Your task to perform on an android device: toggle location history Image 0: 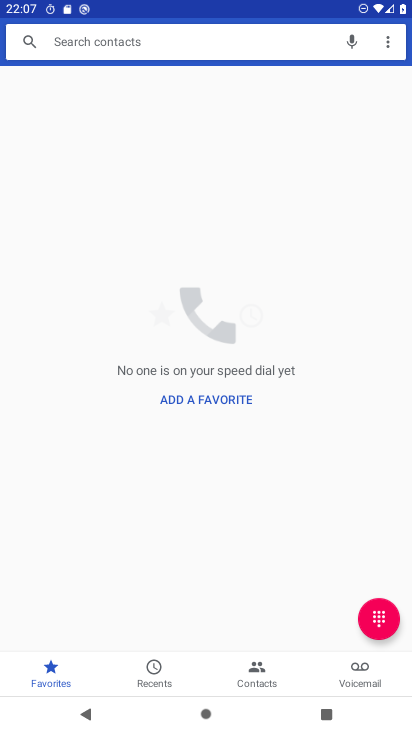
Step 0: press home button
Your task to perform on an android device: toggle location history Image 1: 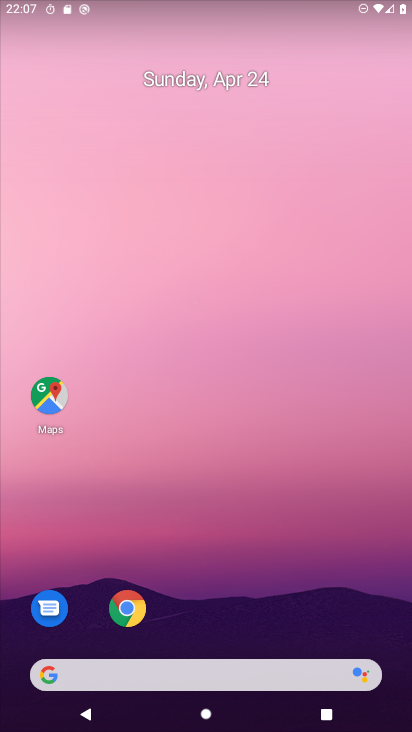
Step 1: drag from (292, 565) to (291, 65)
Your task to perform on an android device: toggle location history Image 2: 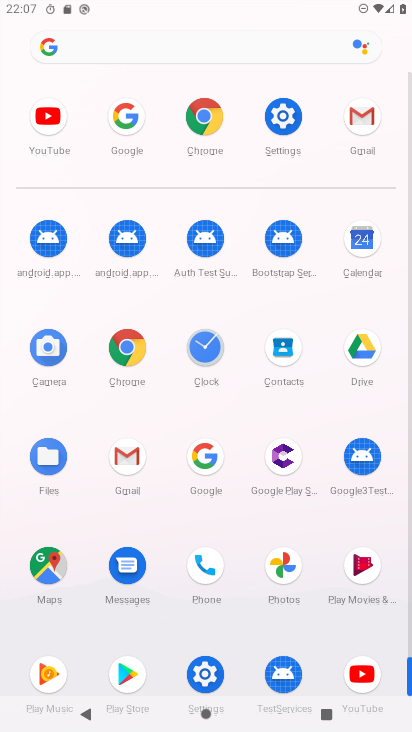
Step 2: click (288, 113)
Your task to perform on an android device: toggle location history Image 3: 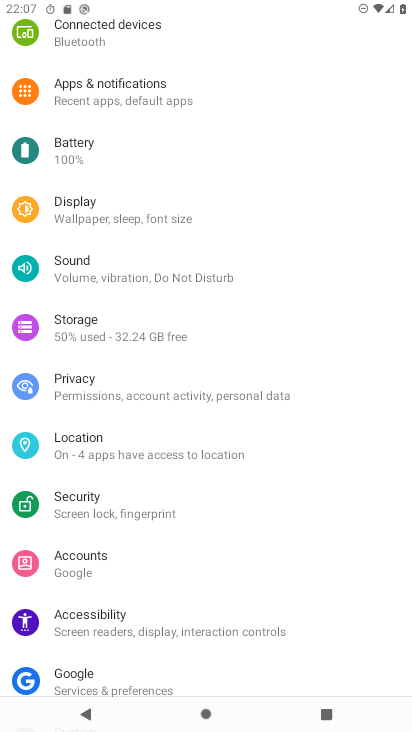
Step 3: click (149, 436)
Your task to perform on an android device: toggle location history Image 4: 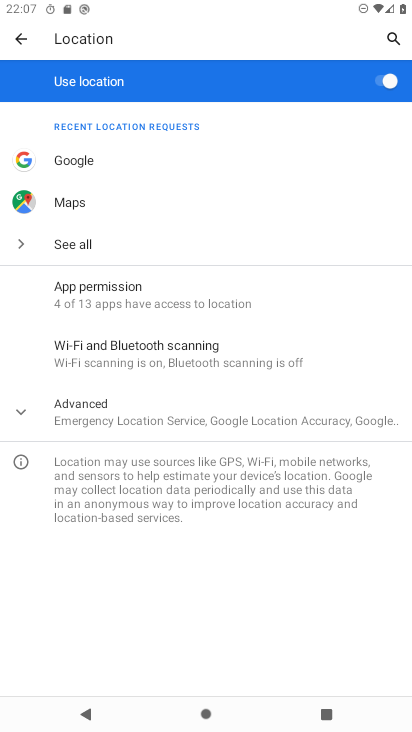
Step 4: click (17, 409)
Your task to perform on an android device: toggle location history Image 5: 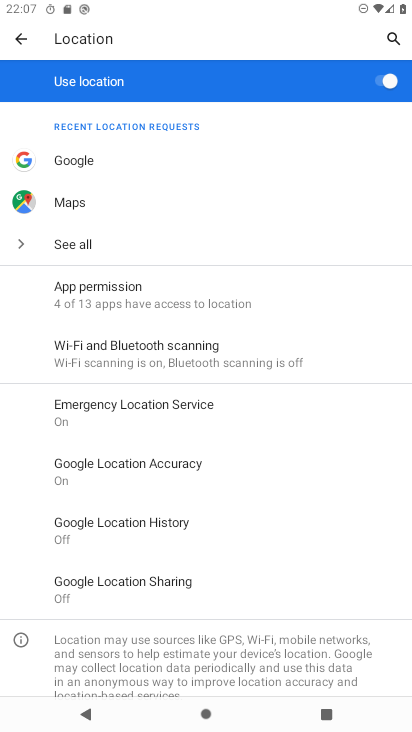
Step 5: click (84, 522)
Your task to perform on an android device: toggle location history Image 6: 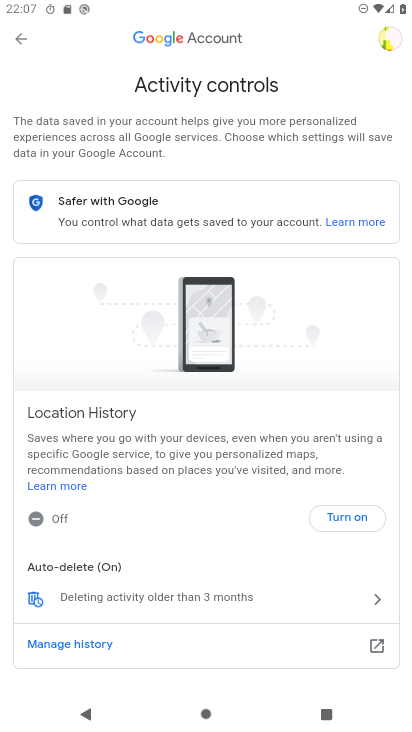
Step 6: click (331, 511)
Your task to perform on an android device: toggle location history Image 7: 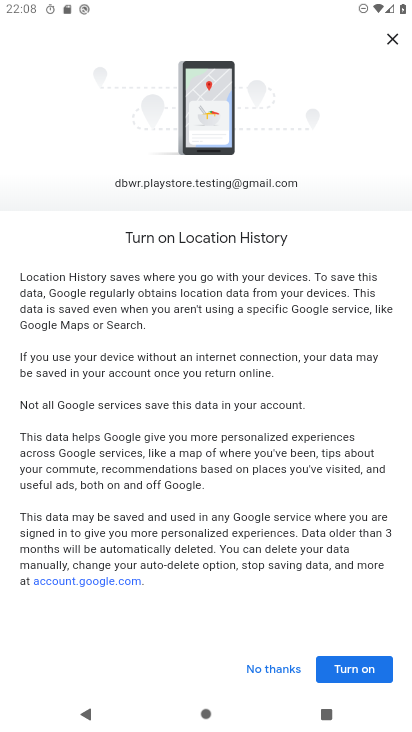
Step 7: click (361, 669)
Your task to perform on an android device: toggle location history Image 8: 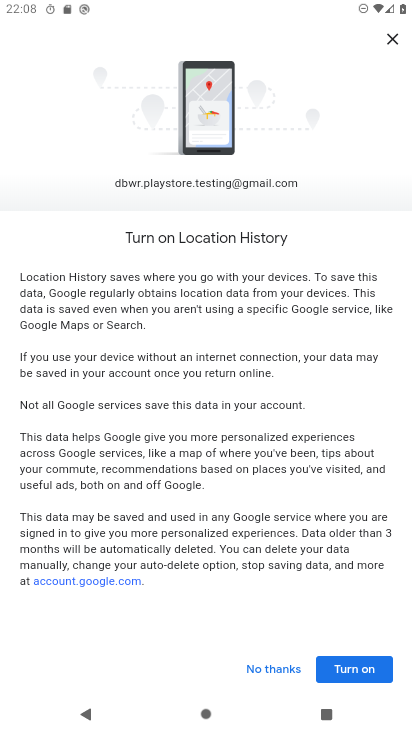
Step 8: click (361, 669)
Your task to perform on an android device: toggle location history Image 9: 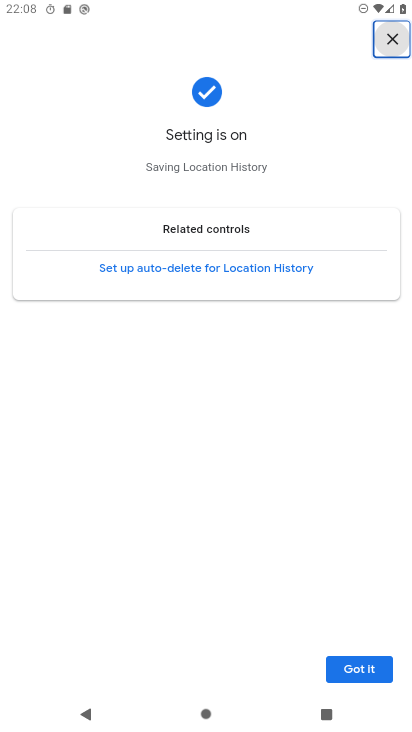
Step 9: click (379, 666)
Your task to perform on an android device: toggle location history Image 10: 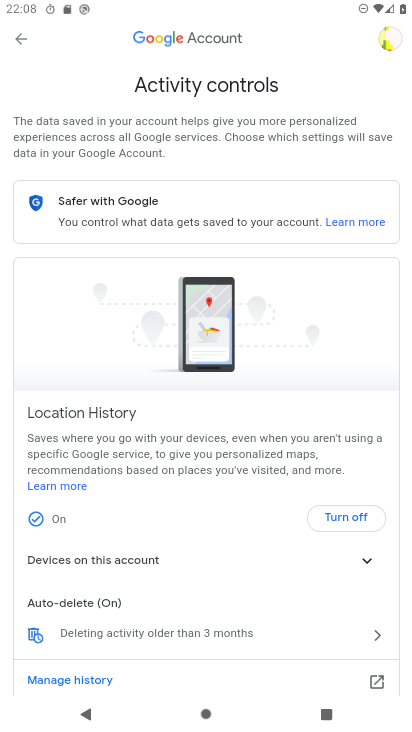
Step 10: task complete